Your task to perform on an android device: add a contact in the contacts app Image 0: 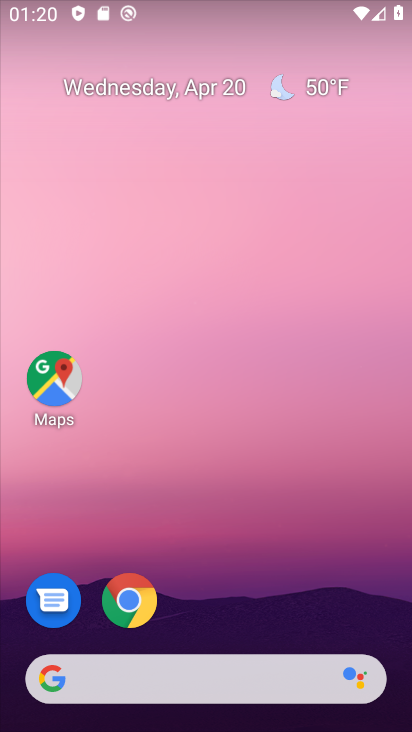
Step 0: drag from (290, 608) to (238, 1)
Your task to perform on an android device: add a contact in the contacts app Image 1: 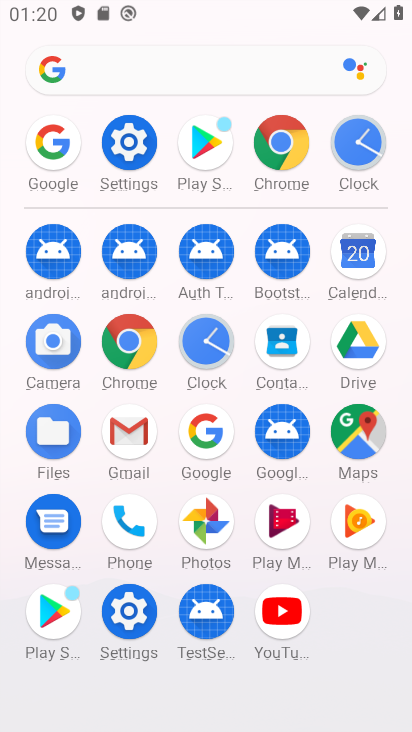
Step 1: click (289, 329)
Your task to perform on an android device: add a contact in the contacts app Image 2: 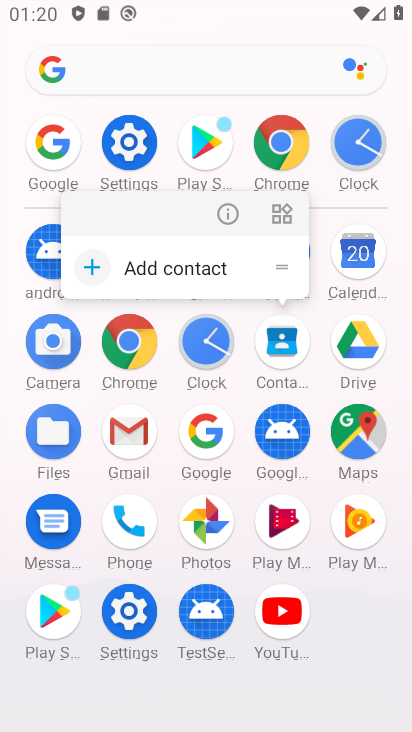
Step 2: click (296, 355)
Your task to perform on an android device: add a contact in the contacts app Image 3: 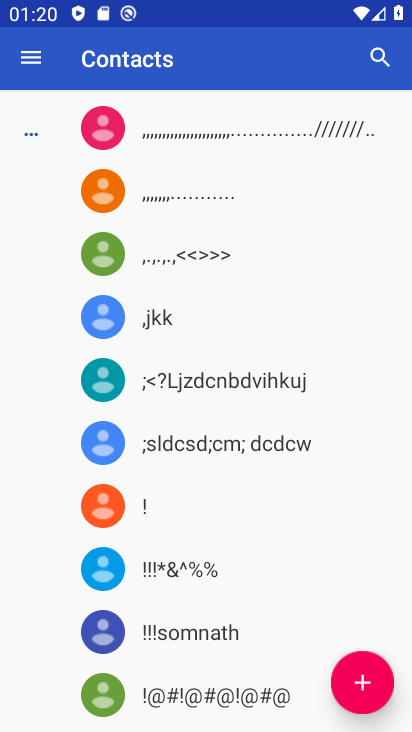
Step 3: click (382, 663)
Your task to perform on an android device: add a contact in the contacts app Image 4: 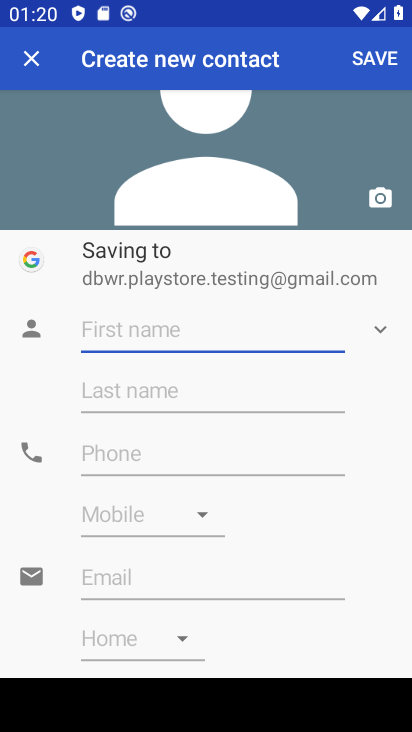
Step 4: type "qas"
Your task to perform on an android device: add a contact in the contacts app Image 5: 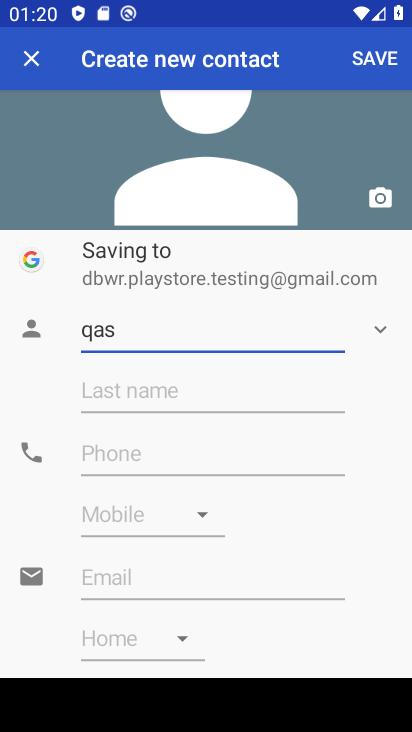
Step 5: click (205, 460)
Your task to perform on an android device: add a contact in the contacts app Image 6: 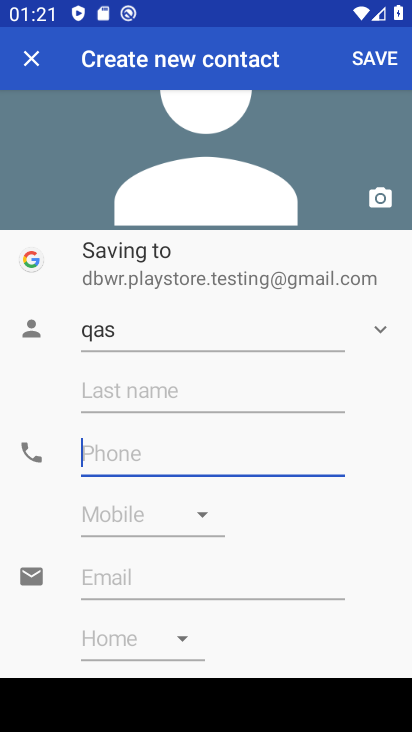
Step 6: type "1233455677"
Your task to perform on an android device: add a contact in the contacts app Image 7: 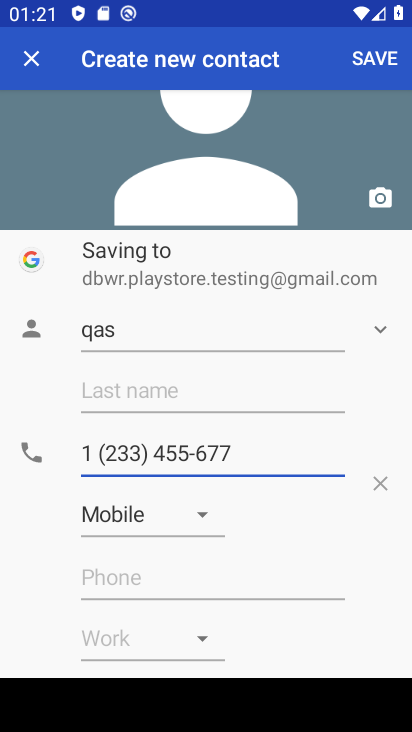
Step 7: click (385, 54)
Your task to perform on an android device: add a contact in the contacts app Image 8: 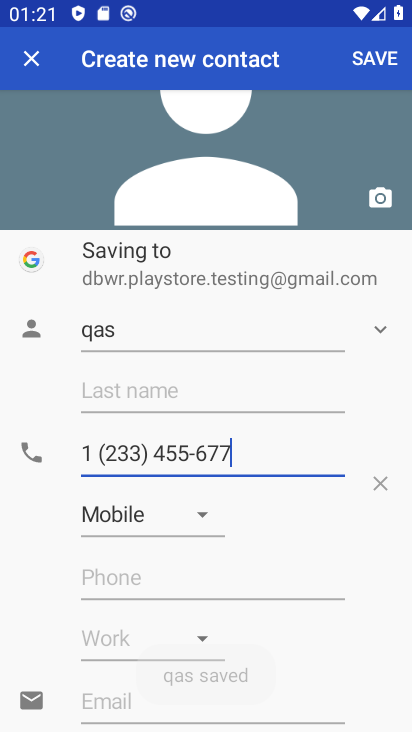
Step 8: task complete